Your task to perform on an android device: check data usage Image 0: 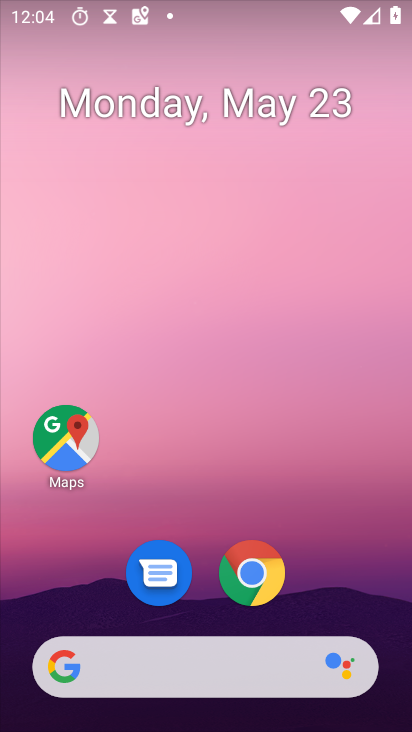
Step 0: press home button
Your task to perform on an android device: check data usage Image 1: 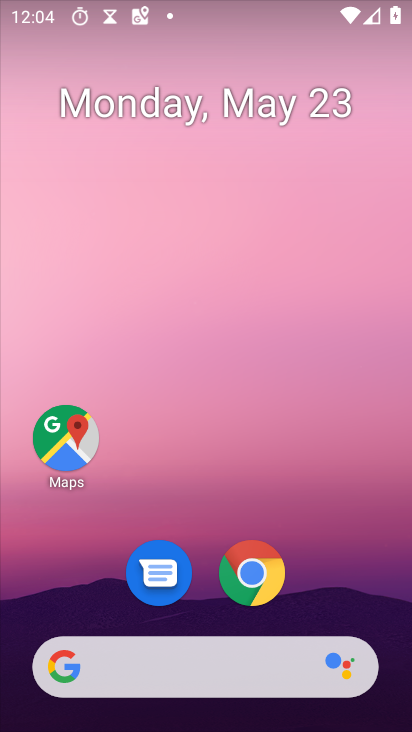
Step 1: drag from (224, 668) to (350, 176)
Your task to perform on an android device: check data usage Image 2: 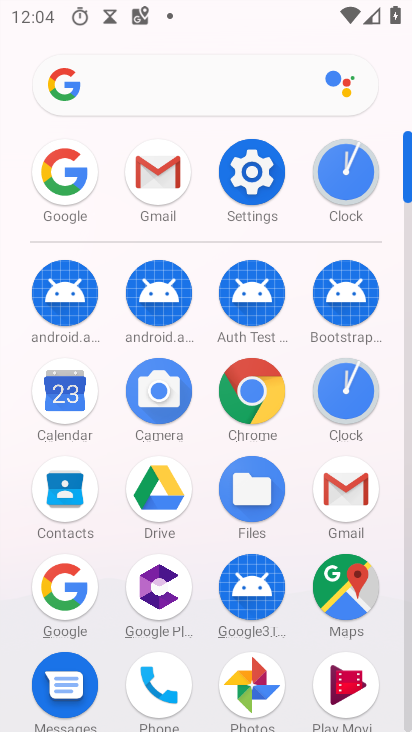
Step 2: click (263, 182)
Your task to perform on an android device: check data usage Image 3: 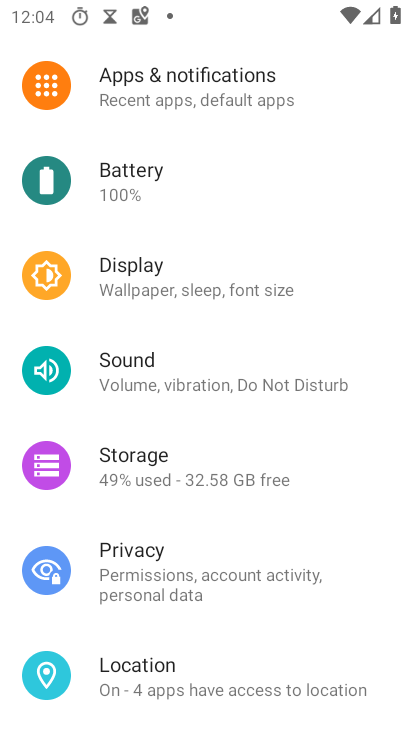
Step 3: drag from (292, 164) to (234, 509)
Your task to perform on an android device: check data usage Image 4: 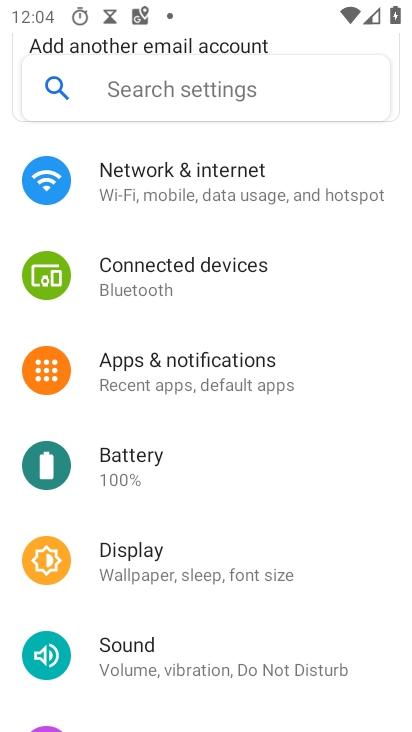
Step 4: drag from (287, 240) to (260, 516)
Your task to perform on an android device: check data usage Image 5: 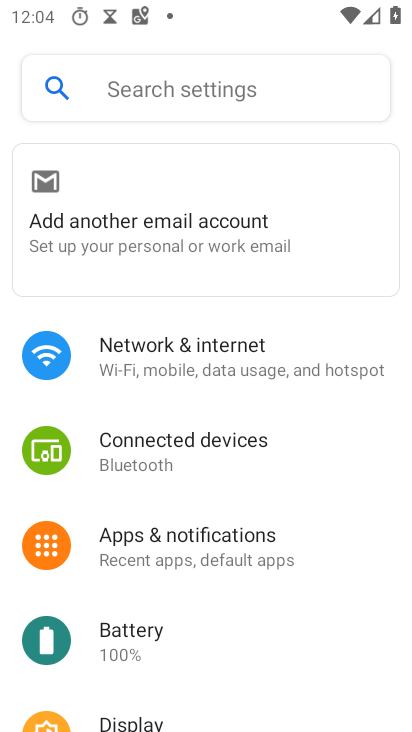
Step 5: click (209, 364)
Your task to perform on an android device: check data usage Image 6: 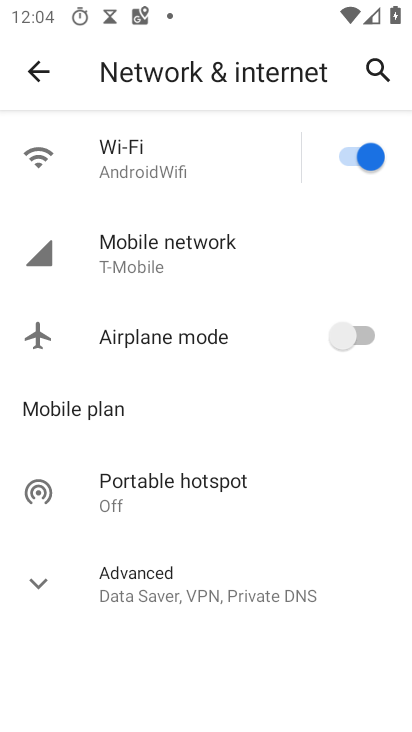
Step 6: click (163, 172)
Your task to perform on an android device: check data usage Image 7: 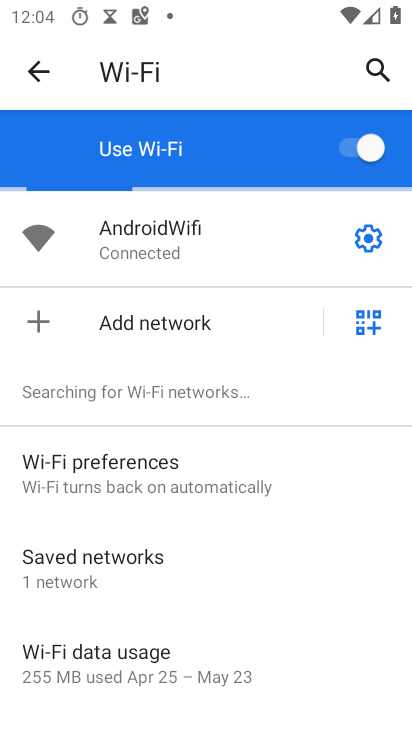
Step 7: click (129, 648)
Your task to perform on an android device: check data usage Image 8: 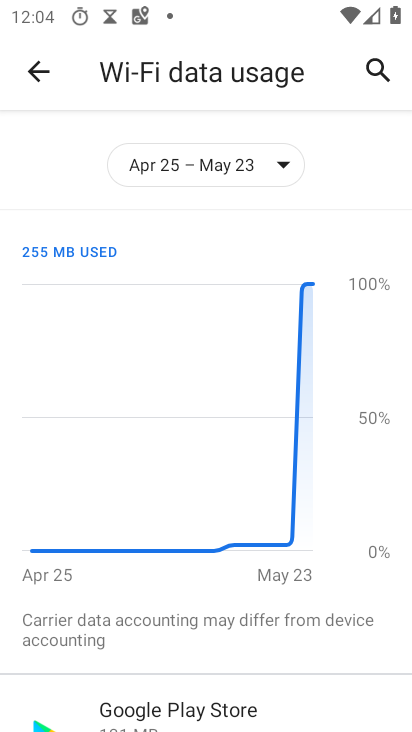
Step 8: task complete